Your task to perform on an android device: Open ESPN.com Image 0: 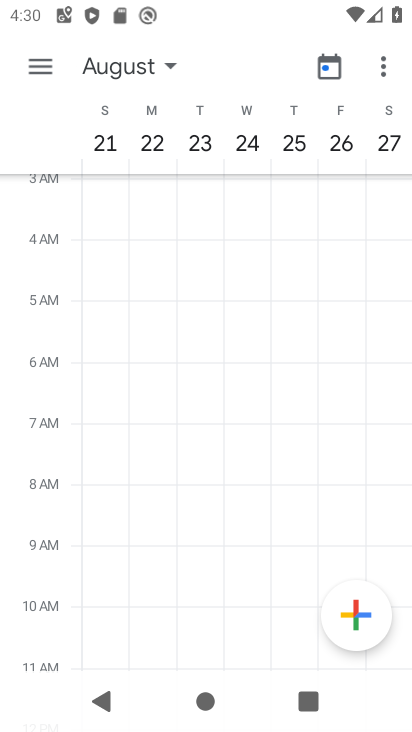
Step 0: press home button
Your task to perform on an android device: Open ESPN.com Image 1: 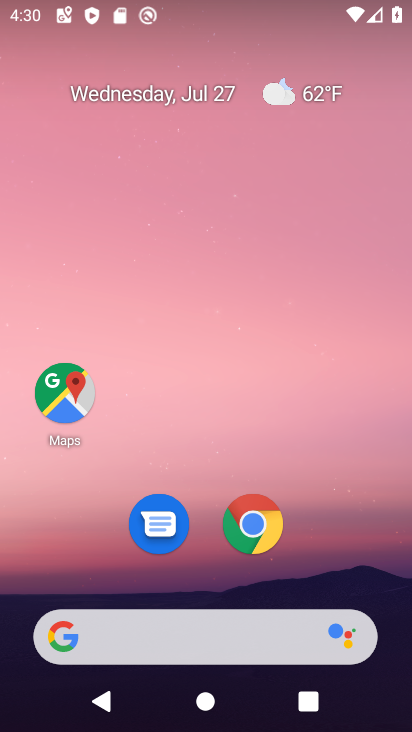
Step 1: click (216, 643)
Your task to perform on an android device: Open ESPN.com Image 2: 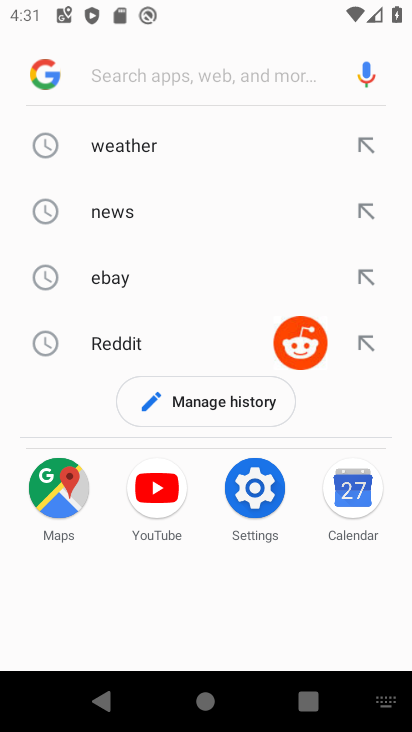
Step 2: type "espn.com"
Your task to perform on an android device: Open ESPN.com Image 3: 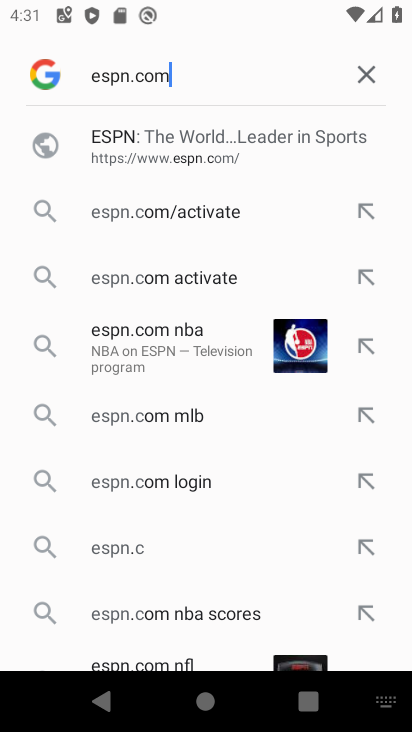
Step 3: click (185, 147)
Your task to perform on an android device: Open ESPN.com Image 4: 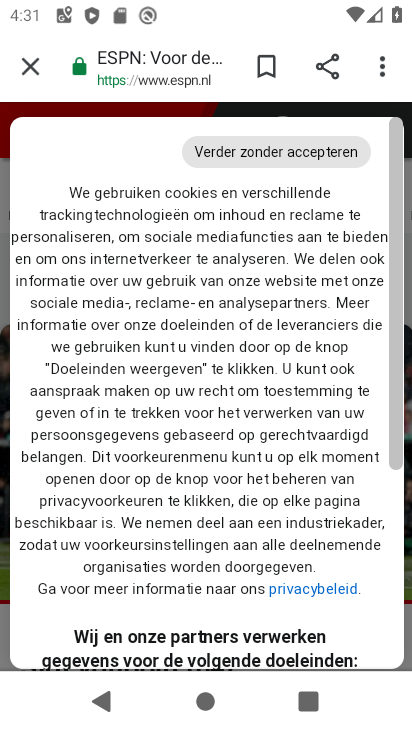
Step 4: task complete